Your task to perform on an android device: Play the new Justin Bieber video on YouTube Image 0: 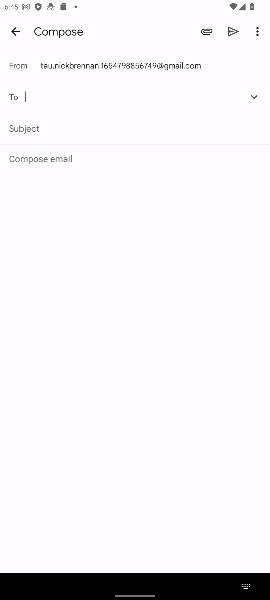
Step 0: press home button
Your task to perform on an android device: Play the new Justin Bieber video on YouTube Image 1: 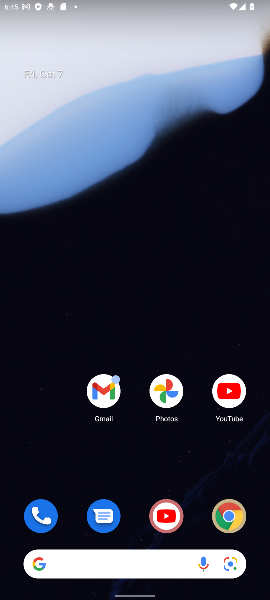
Step 1: drag from (122, 539) to (108, 96)
Your task to perform on an android device: Play the new Justin Bieber video on YouTube Image 2: 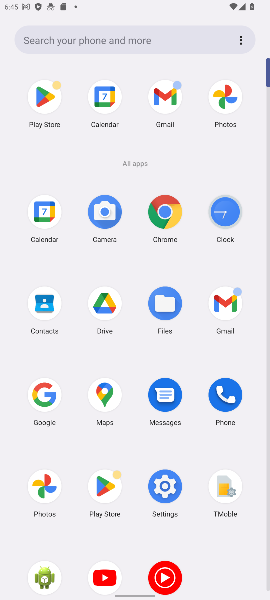
Step 2: click (113, 589)
Your task to perform on an android device: Play the new Justin Bieber video on YouTube Image 3: 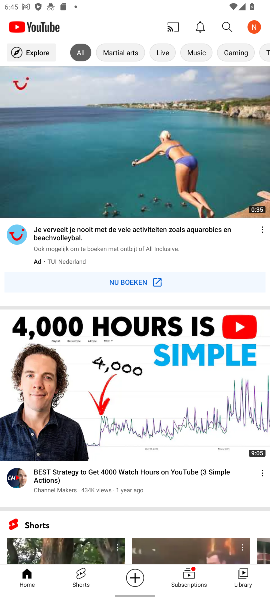
Step 3: click (219, 34)
Your task to perform on an android device: Play the new Justin Bieber video on YouTube Image 4: 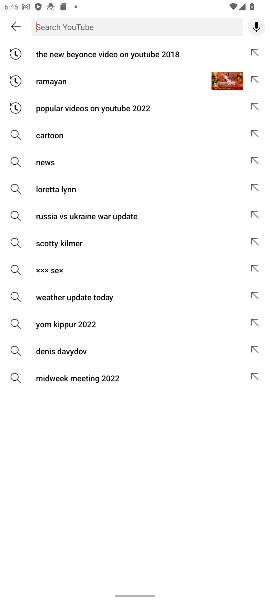
Step 4: type "justin bieber"
Your task to perform on an android device: Play the new Justin Bieber video on YouTube Image 5: 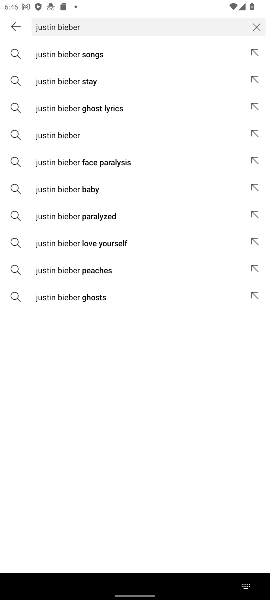
Step 5: click (105, 55)
Your task to perform on an android device: Play the new Justin Bieber video on YouTube Image 6: 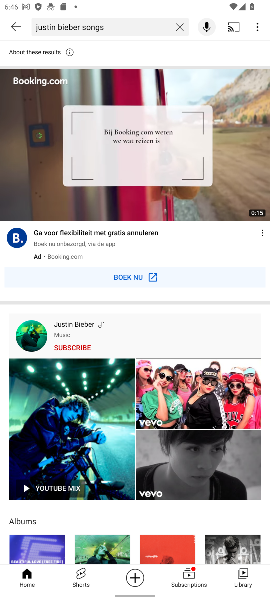
Step 6: task complete